Your task to perform on an android device: add a contact in the contacts app Image 0: 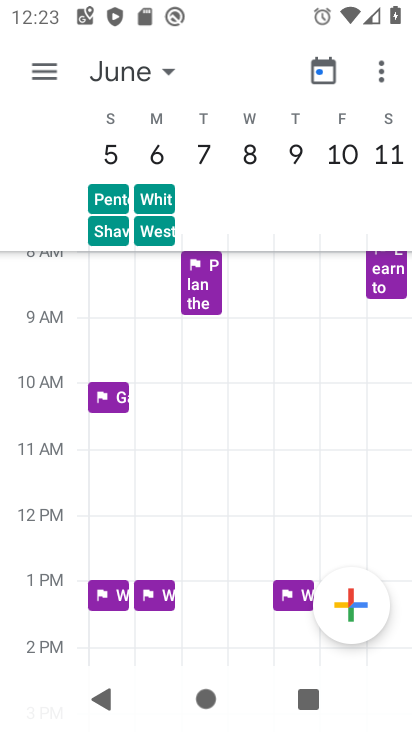
Step 0: press back button
Your task to perform on an android device: add a contact in the contacts app Image 1: 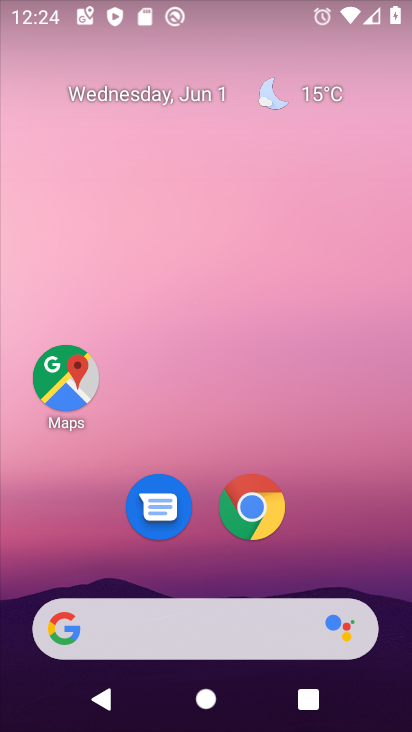
Step 1: drag from (337, 536) to (250, 143)
Your task to perform on an android device: add a contact in the contacts app Image 2: 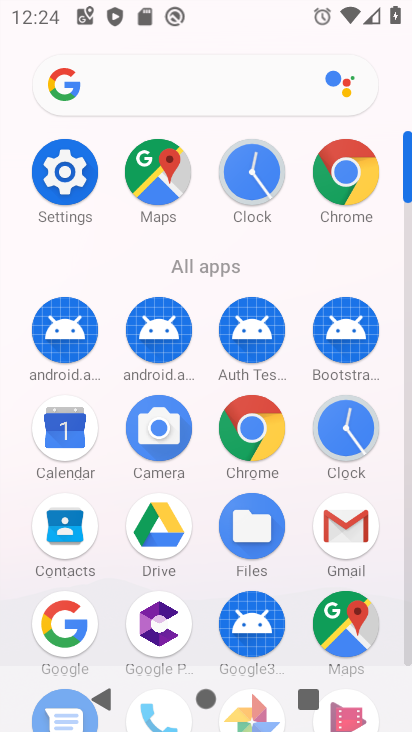
Step 2: click (69, 525)
Your task to perform on an android device: add a contact in the contacts app Image 3: 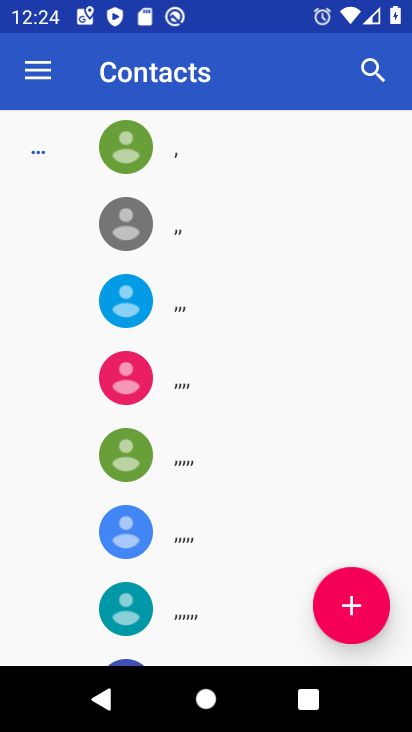
Step 3: click (354, 607)
Your task to perform on an android device: add a contact in the contacts app Image 4: 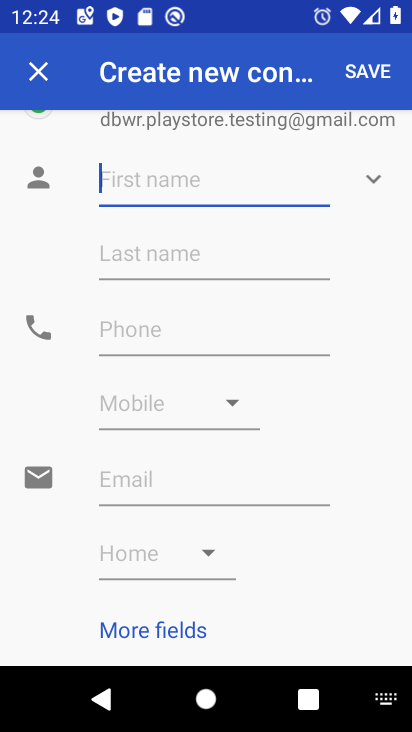
Step 4: click (185, 169)
Your task to perform on an android device: add a contact in the contacts app Image 5: 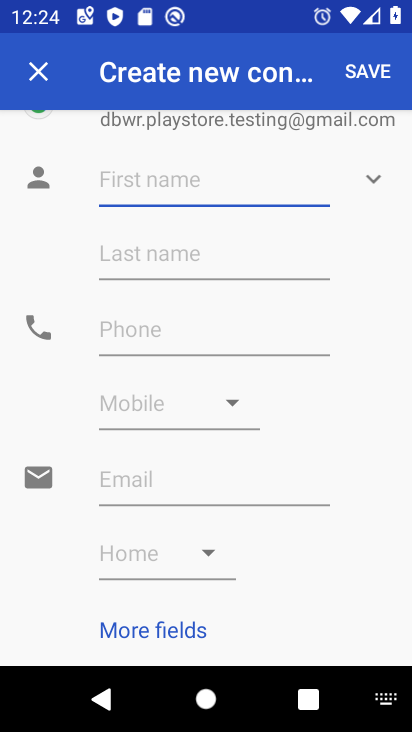
Step 5: type "Sukhwinder"
Your task to perform on an android device: add a contact in the contacts app Image 6: 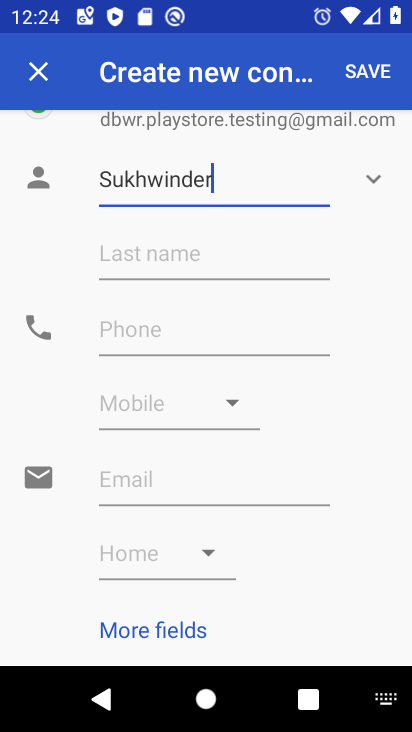
Step 6: click (152, 258)
Your task to perform on an android device: add a contact in the contacts app Image 7: 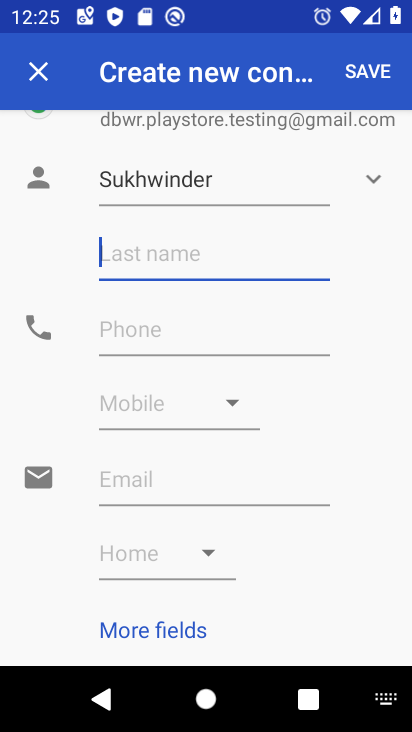
Step 7: type "Lakhpati"
Your task to perform on an android device: add a contact in the contacts app Image 8: 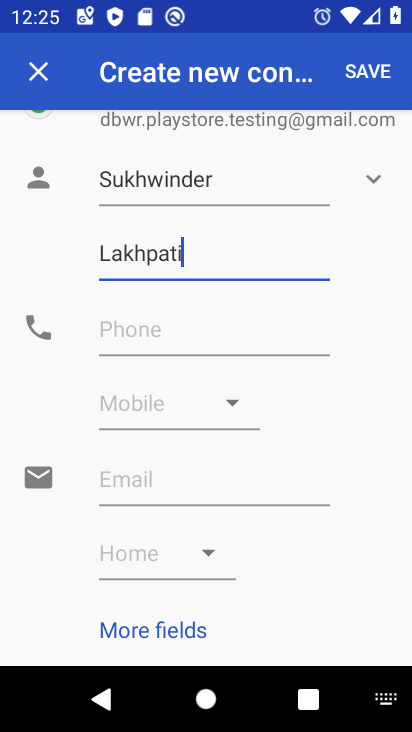
Step 8: click (237, 334)
Your task to perform on an android device: add a contact in the contacts app Image 9: 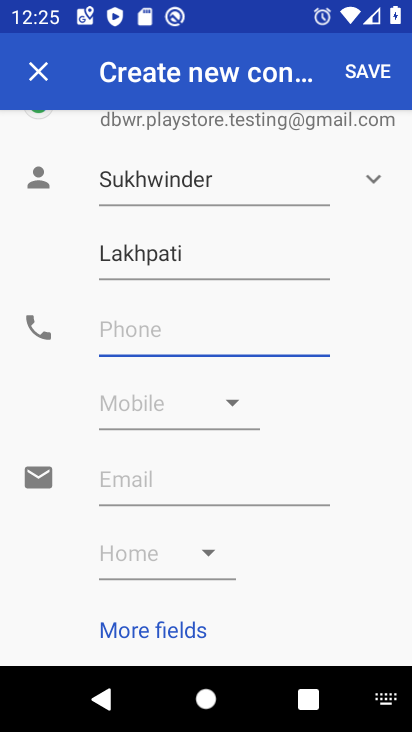
Step 9: type "09827662862"
Your task to perform on an android device: add a contact in the contacts app Image 10: 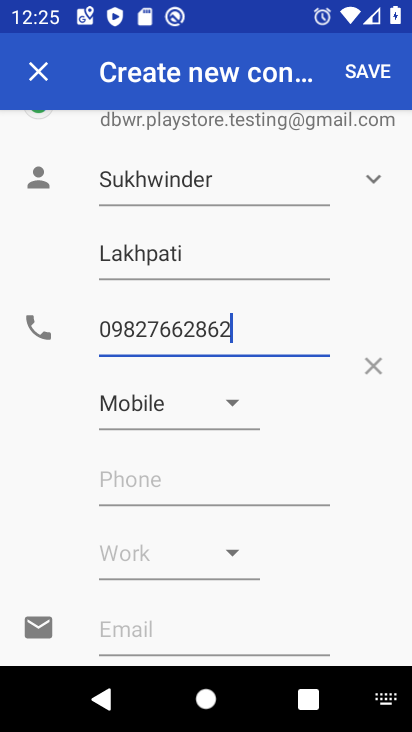
Step 10: click (369, 60)
Your task to perform on an android device: add a contact in the contacts app Image 11: 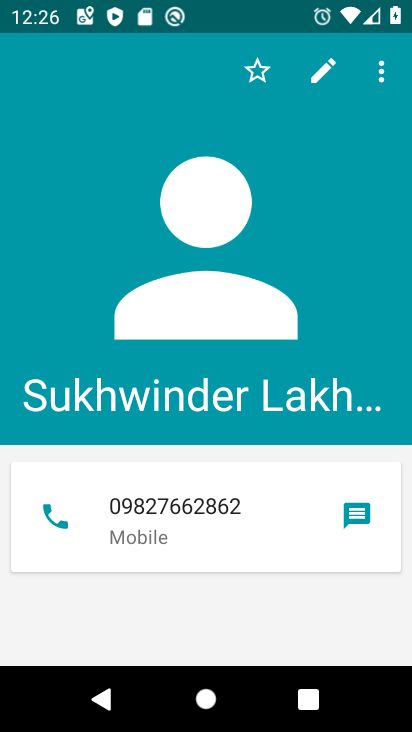
Step 11: task complete